Your task to perform on an android device: set an alarm Image 0: 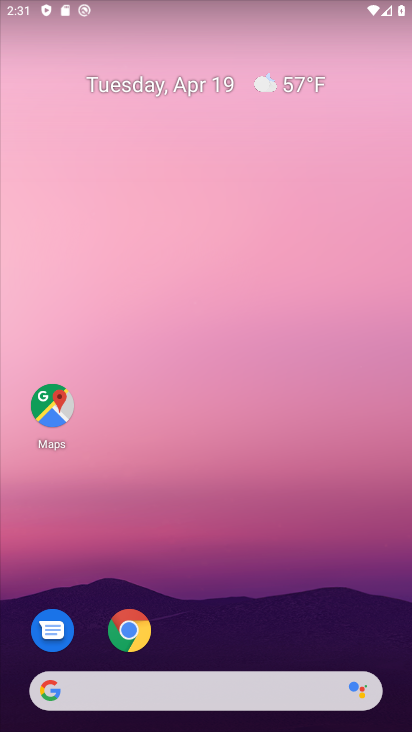
Step 0: drag from (271, 585) to (266, 171)
Your task to perform on an android device: set an alarm Image 1: 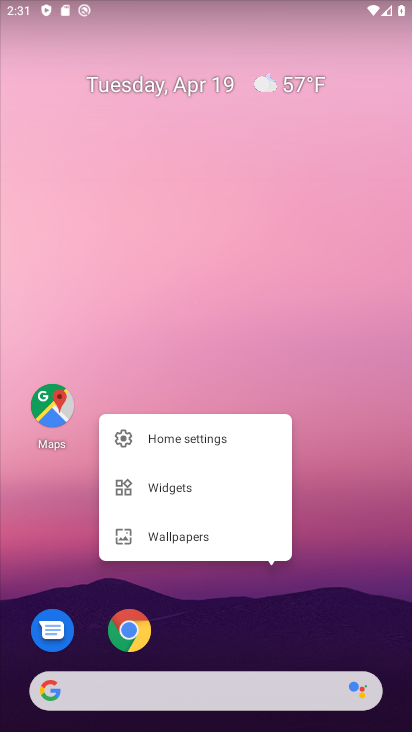
Step 1: click (197, 326)
Your task to perform on an android device: set an alarm Image 2: 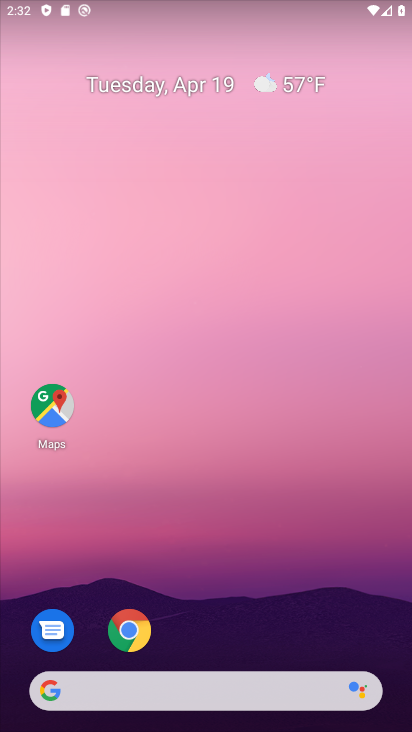
Step 2: drag from (188, 322) to (315, 34)
Your task to perform on an android device: set an alarm Image 3: 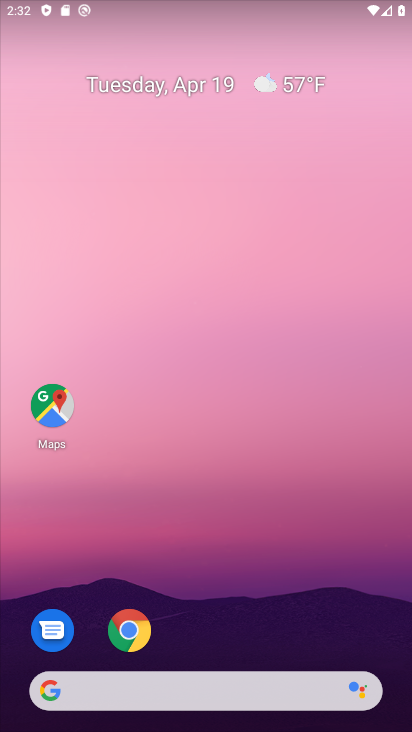
Step 3: drag from (227, 630) to (291, 9)
Your task to perform on an android device: set an alarm Image 4: 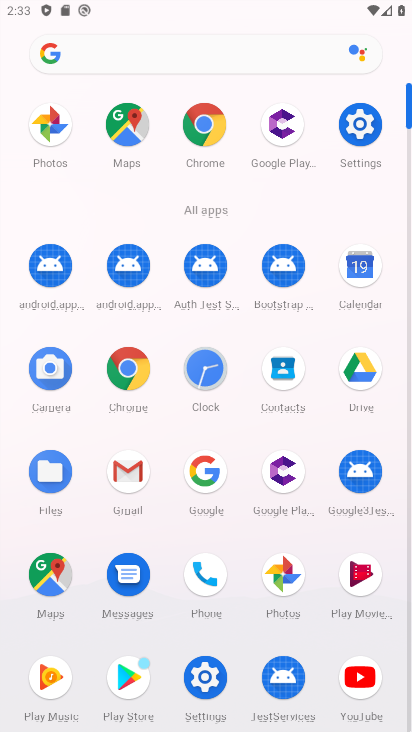
Step 4: click (207, 368)
Your task to perform on an android device: set an alarm Image 5: 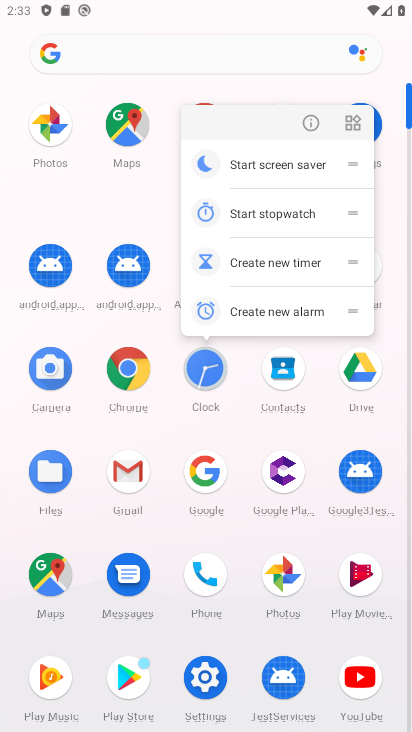
Step 5: click (212, 386)
Your task to perform on an android device: set an alarm Image 6: 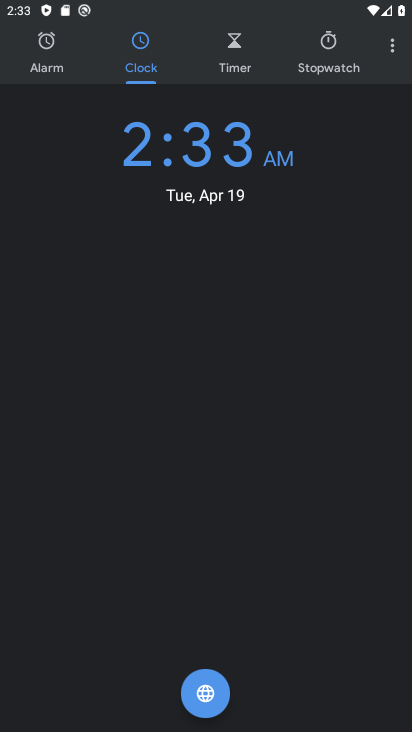
Step 6: click (46, 49)
Your task to perform on an android device: set an alarm Image 7: 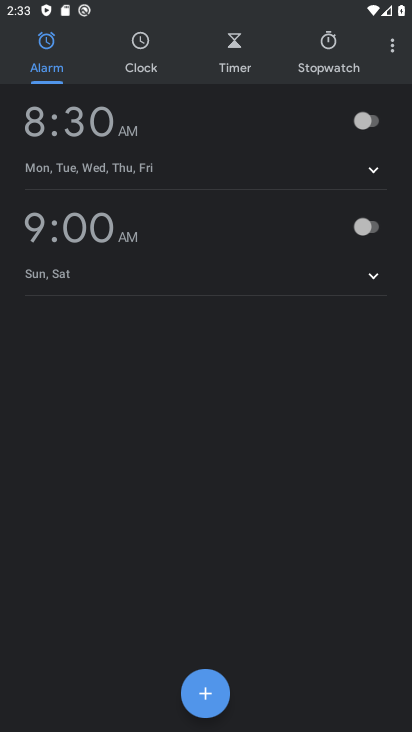
Step 7: click (204, 698)
Your task to perform on an android device: set an alarm Image 8: 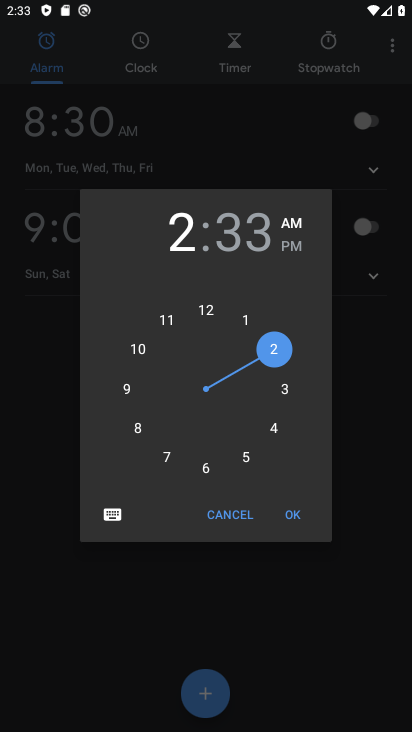
Step 8: click (292, 519)
Your task to perform on an android device: set an alarm Image 9: 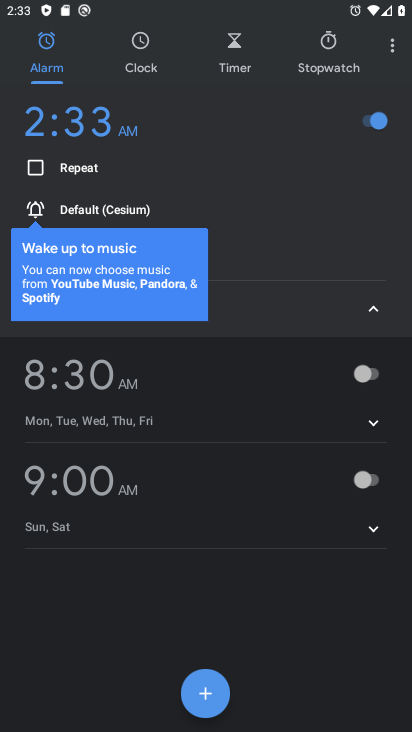
Step 9: task complete